Your task to perform on an android device: Go to wifi settings Image 0: 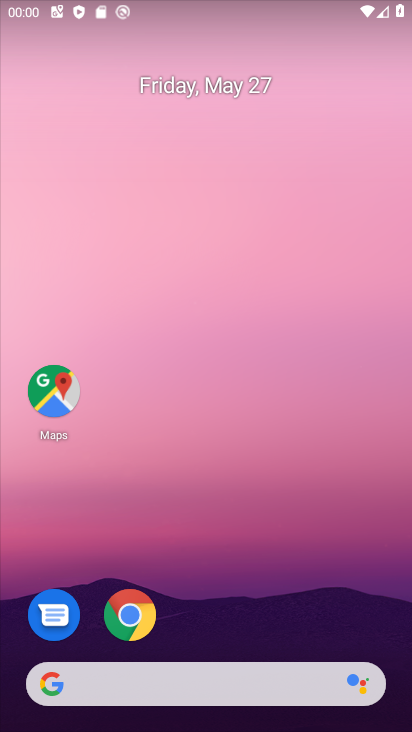
Step 0: drag from (190, 4) to (101, 710)
Your task to perform on an android device: Go to wifi settings Image 1: 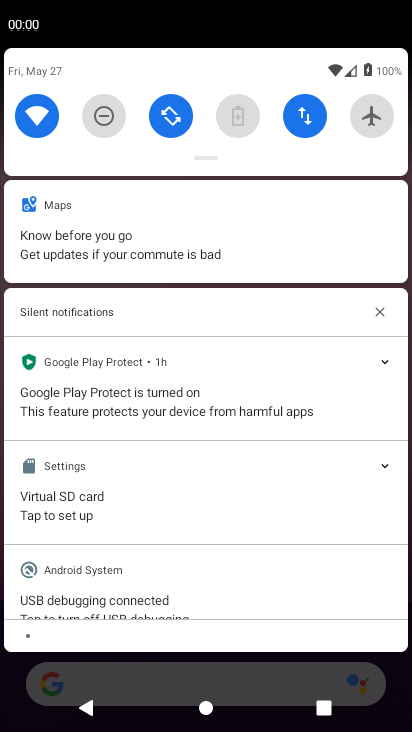
Step 1: drag from (210, 156) to (96, 704)
Your task to perform on an android device: Go to wifi settings Image 2: 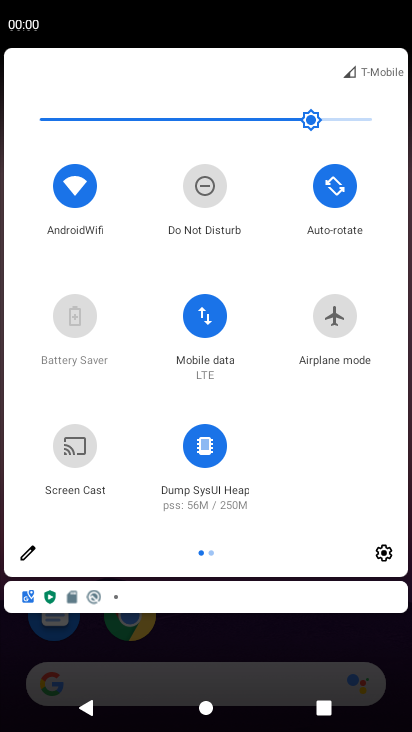
Step 2: click (71, 185)
Your task to perform on an android device: Go to wifi settings Image 3: 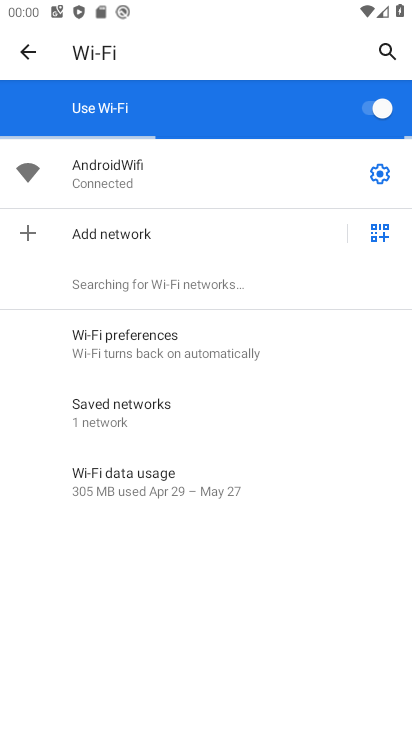
Step 3: task complete